Your task to perform on an android device: Search for "logitech g pro" on costco.com, select the first entry, and add it to the cart. Image 0: 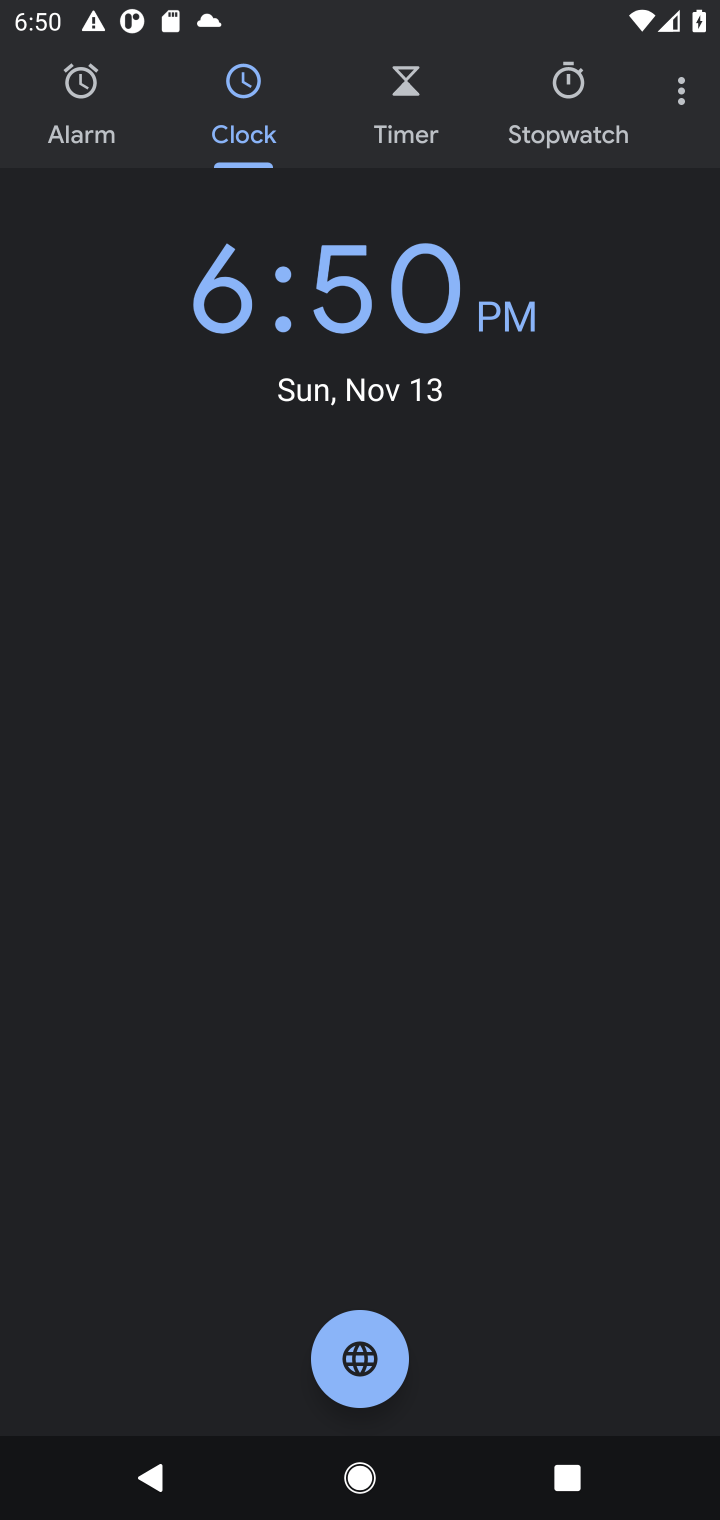
Step 0: press home button
Your task to perform on an android device: Search for "logitech g pro" on costco.com, select the first entry, and add it to the cart. Image 1: 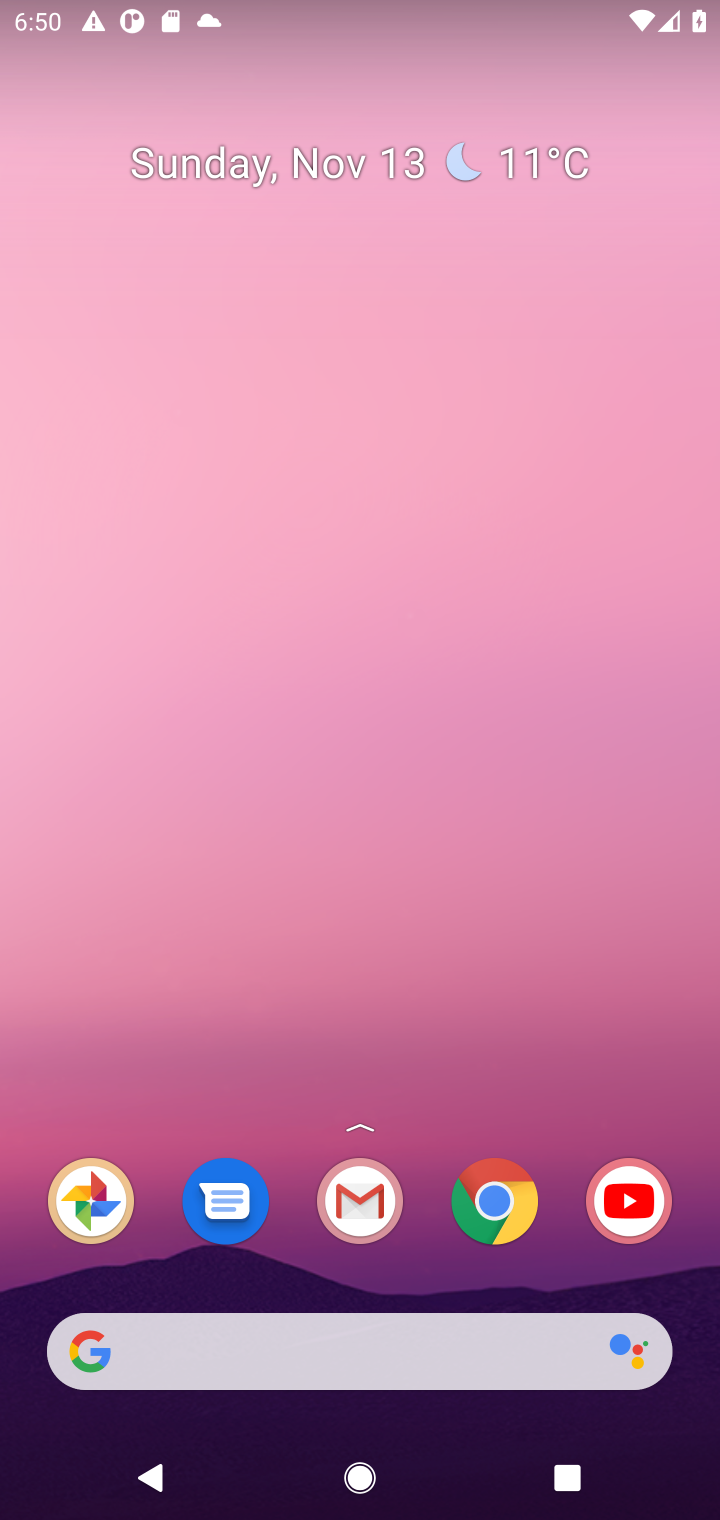
Step 1: drag from (377, 364) to (358, 0)
Your task to perform on an android device: Search for "logitech g pro" on costco.com, select the first entry, and add it to the cart. Image 2: 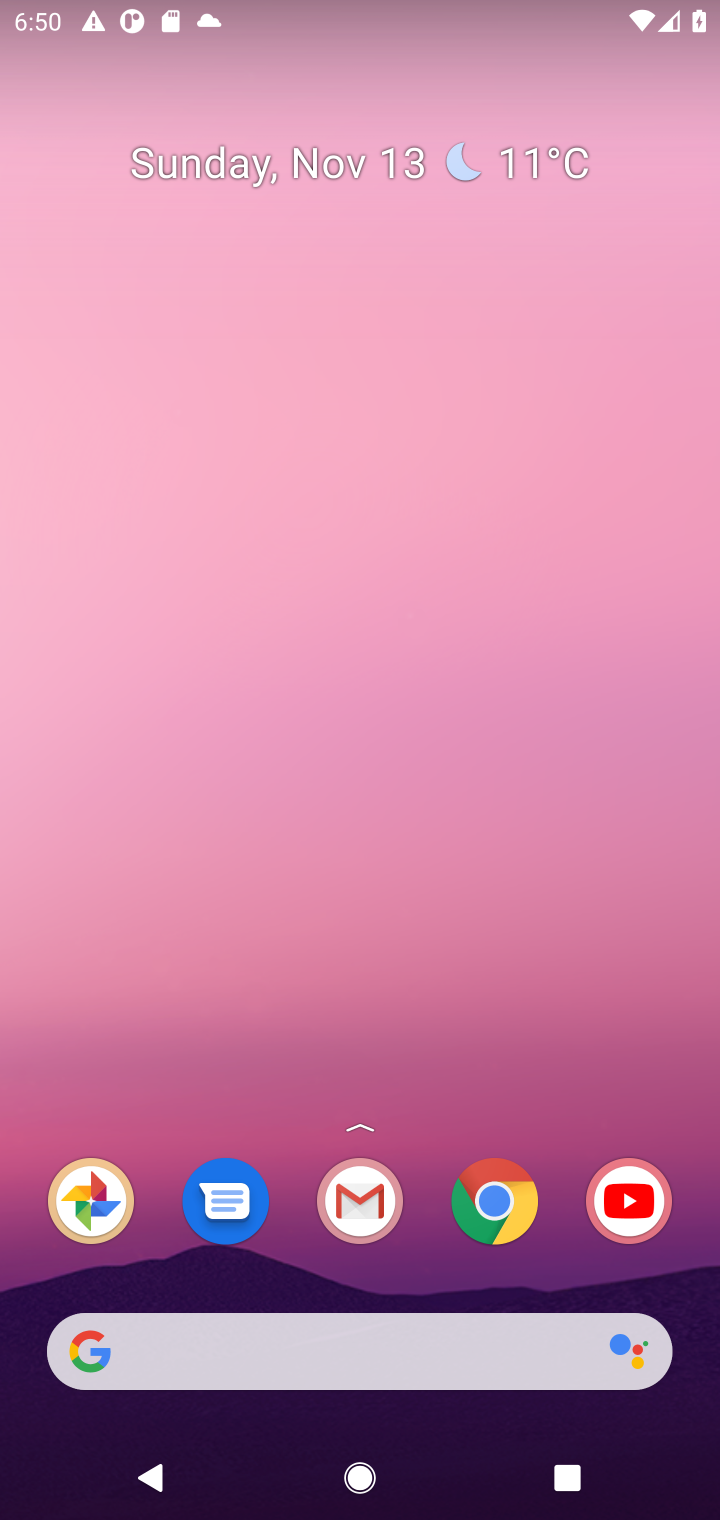
Step 2: drag from (434, 1277) to (414, 48)
Your task to perform on an android device: Search for "logitech g pro" on costco.com, select the first entry, and add it to the cart. Image 3: 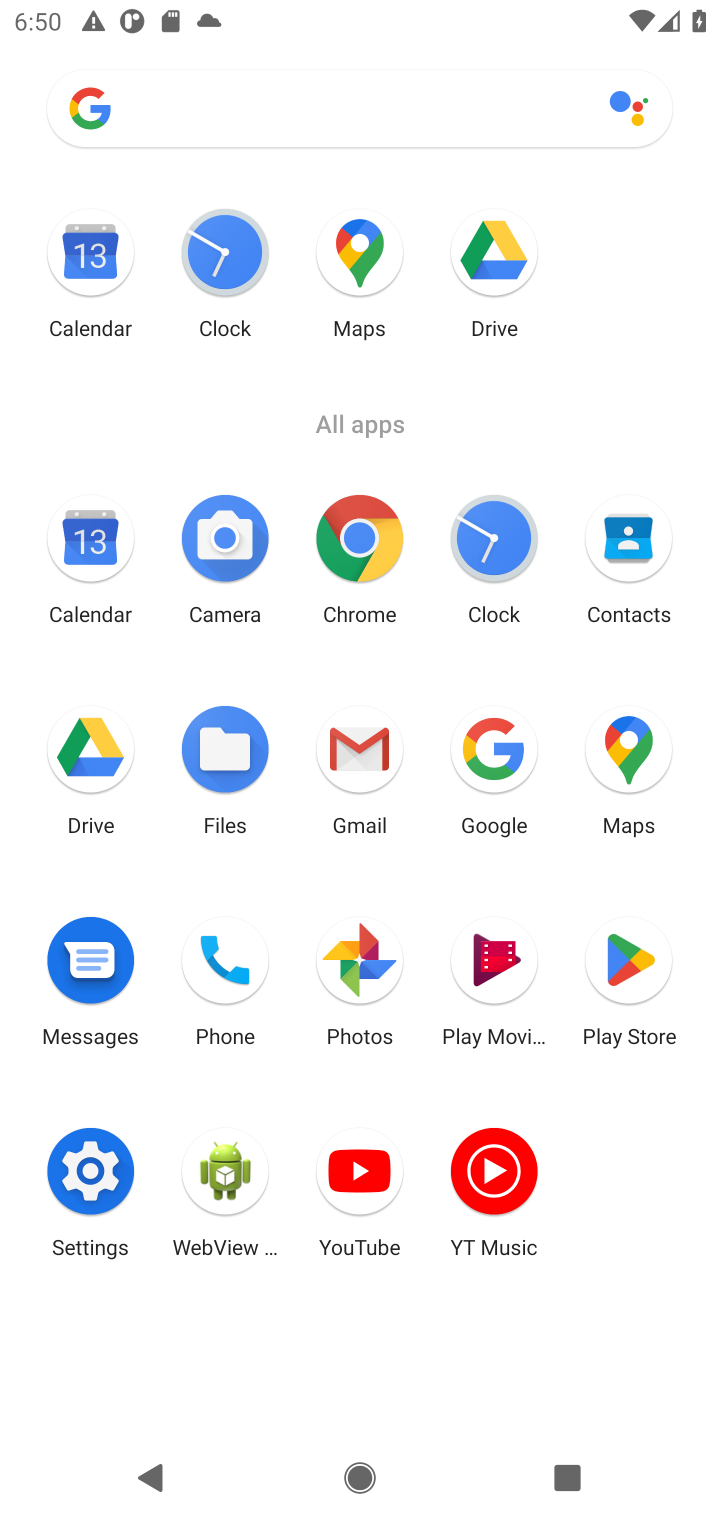
Step 3: click (358, 541)
Your task to perform on an android device: Search for "logitech g pro" on costco.com, select the first entry, and add it to the cart. Image 4: 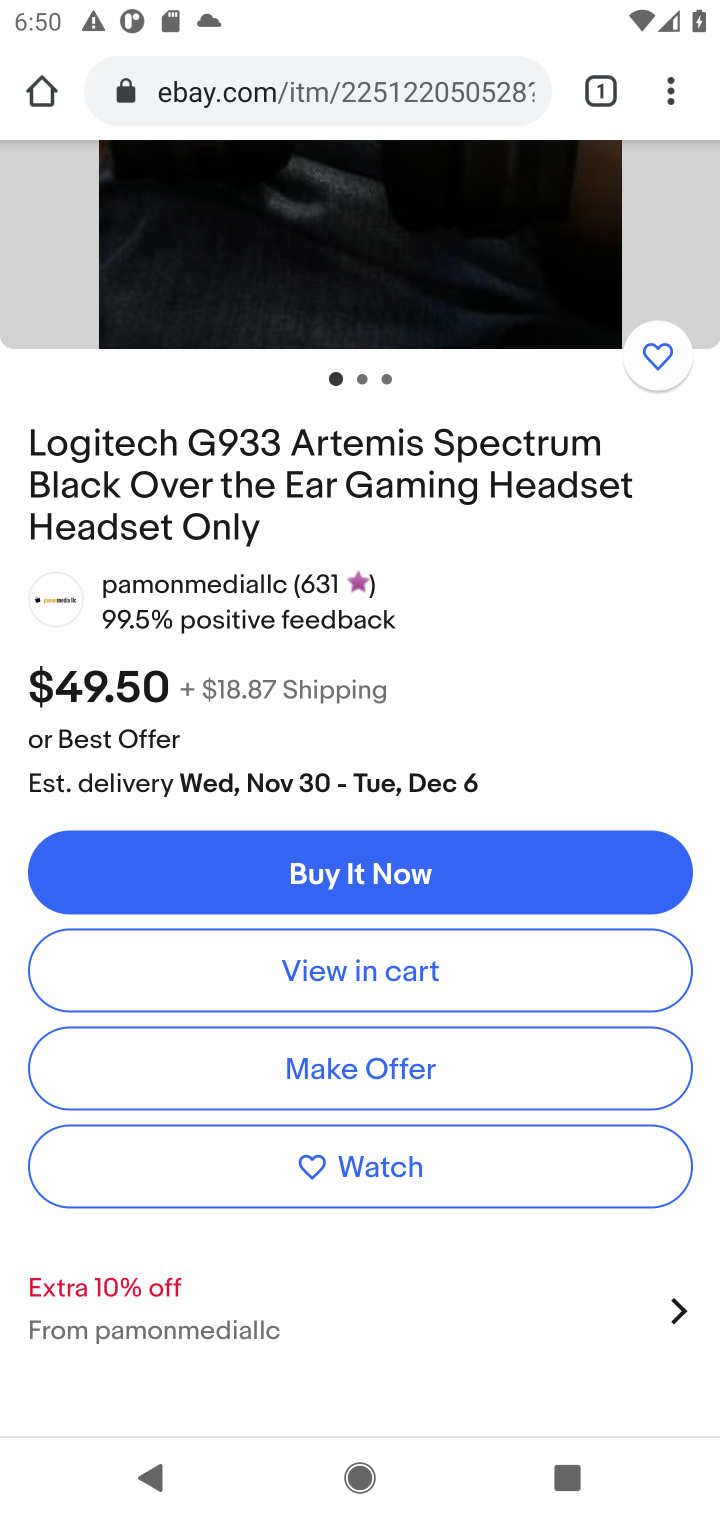
Step 4: click (357, 89)
Your task to perform on an android device: Search for "logitech g pro" on costco.com, select the first entry, and add it to the cart. Image 5: 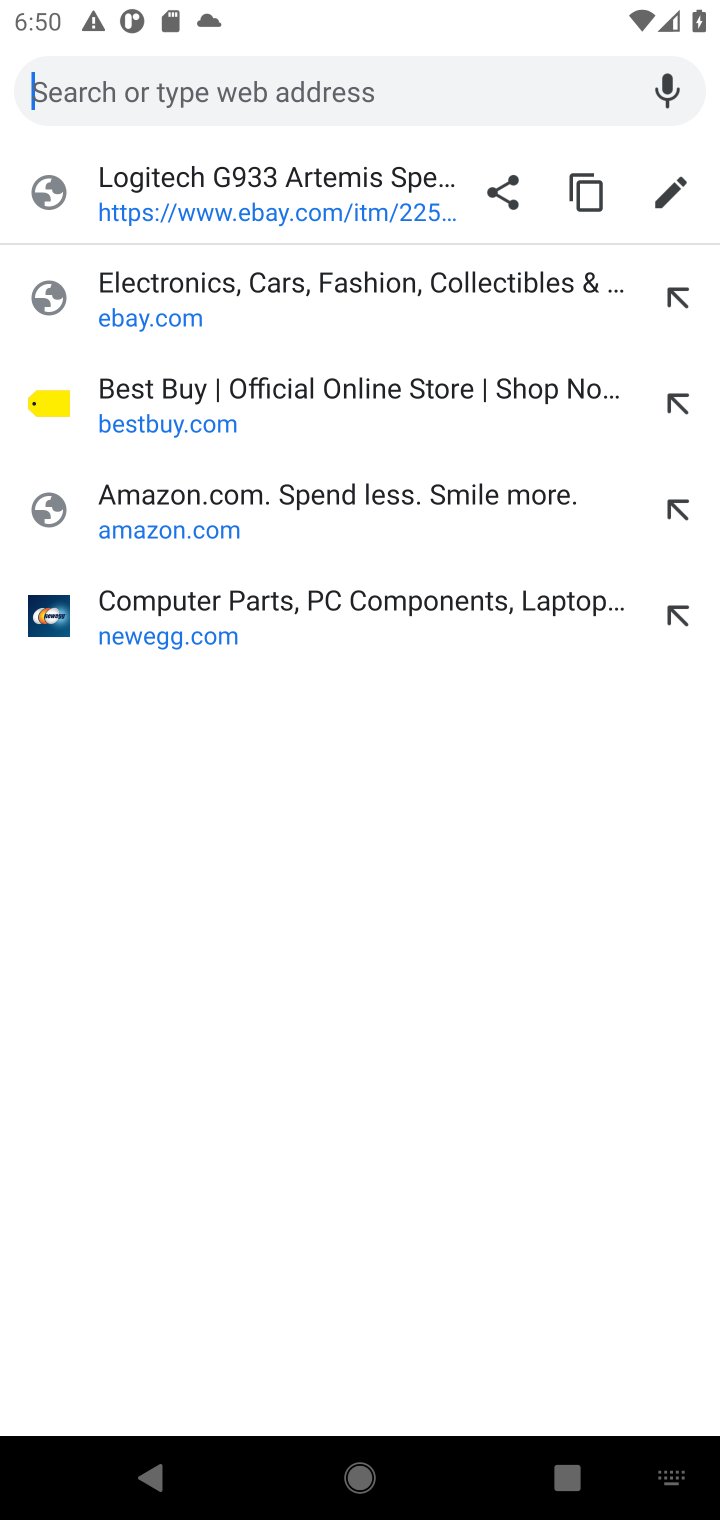
Step 5: type "costco.com"
Your task to perform on an android device: Search for "logitech g pro" on costco.com, select the first entry, and add it to the cart. Image 6: 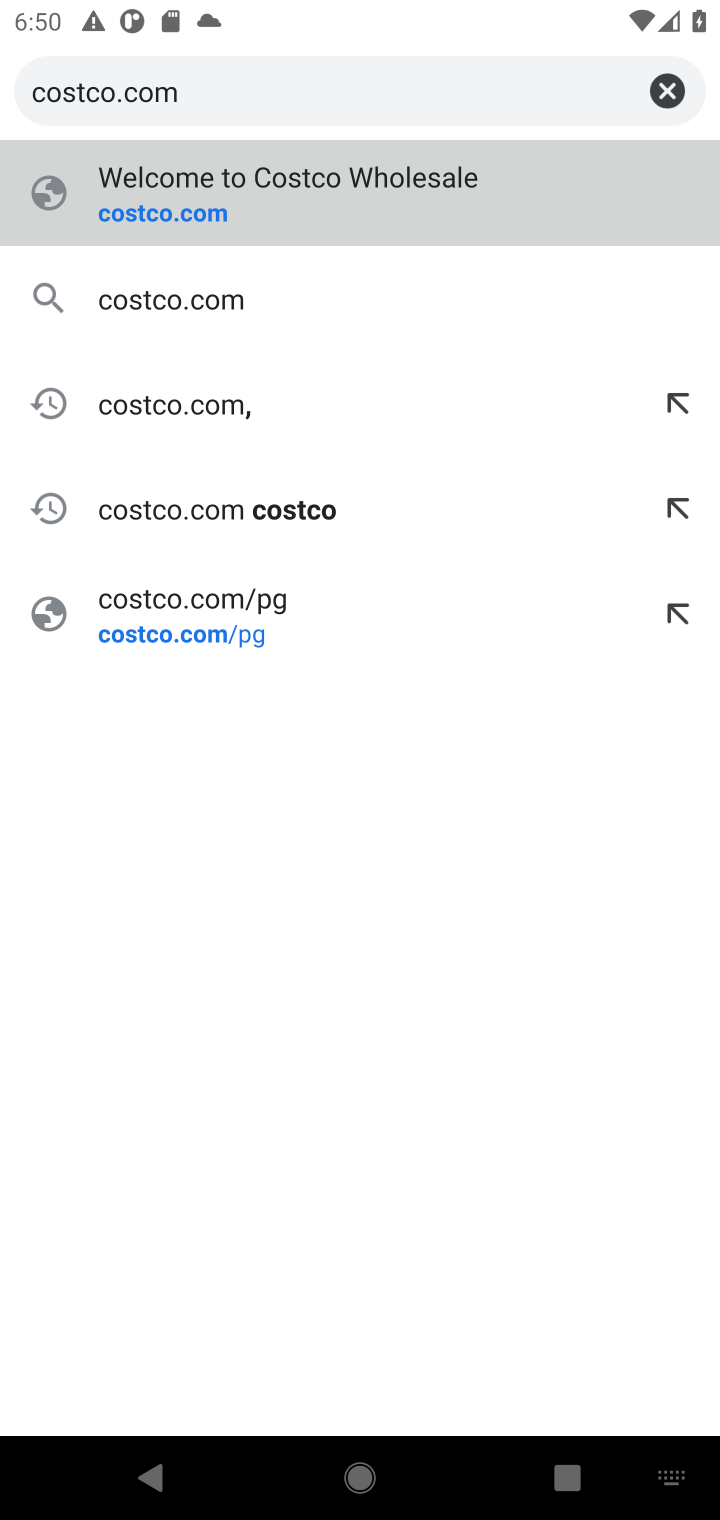
Step 6: press enter
Your task to perform on an android device: Search for "logitech g pro" on costco.com, select the first entry, and add it to the cart. Image 7: 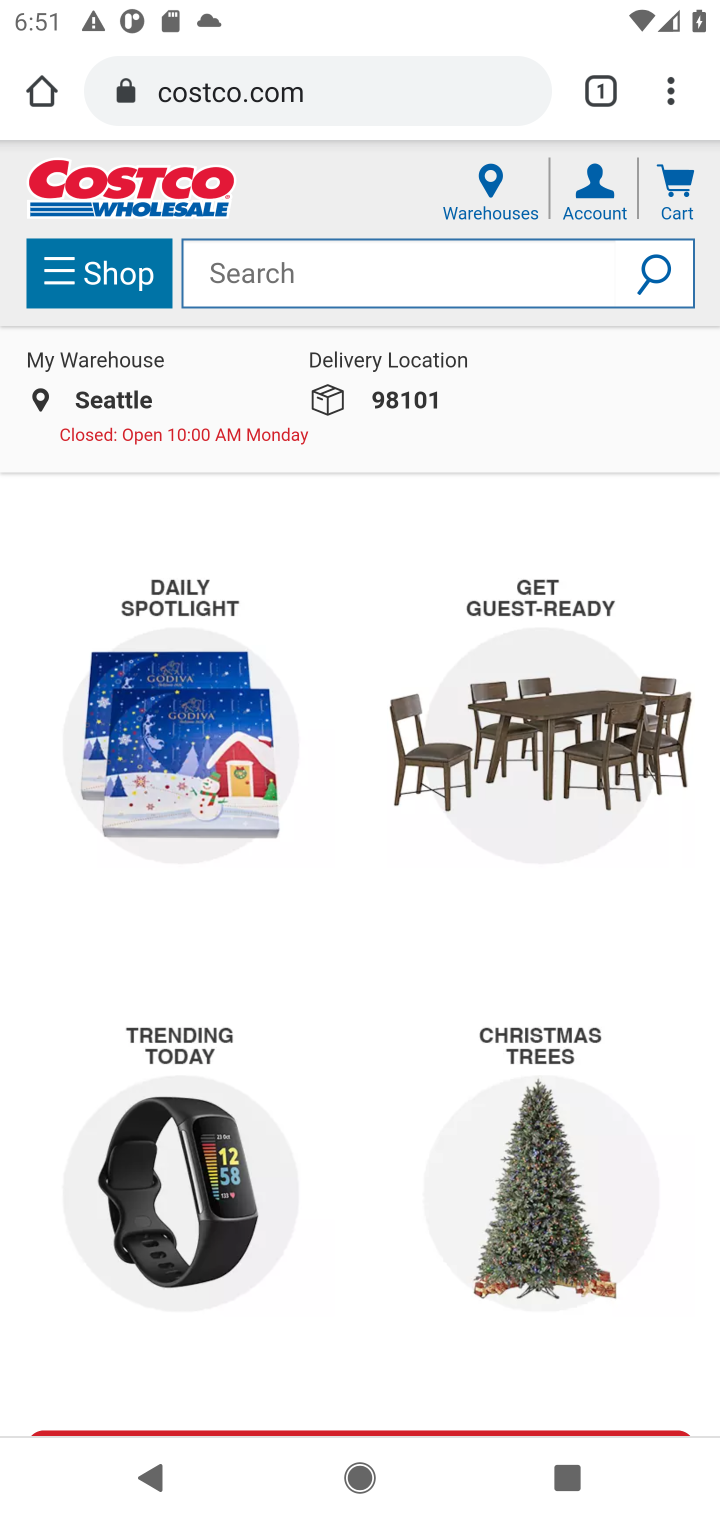
Step 7: click (536, 270)
Your task to perform on an android device: Search for "logitech g pro" on costco.com, select the first entry, and add it to the cart. Image 8: 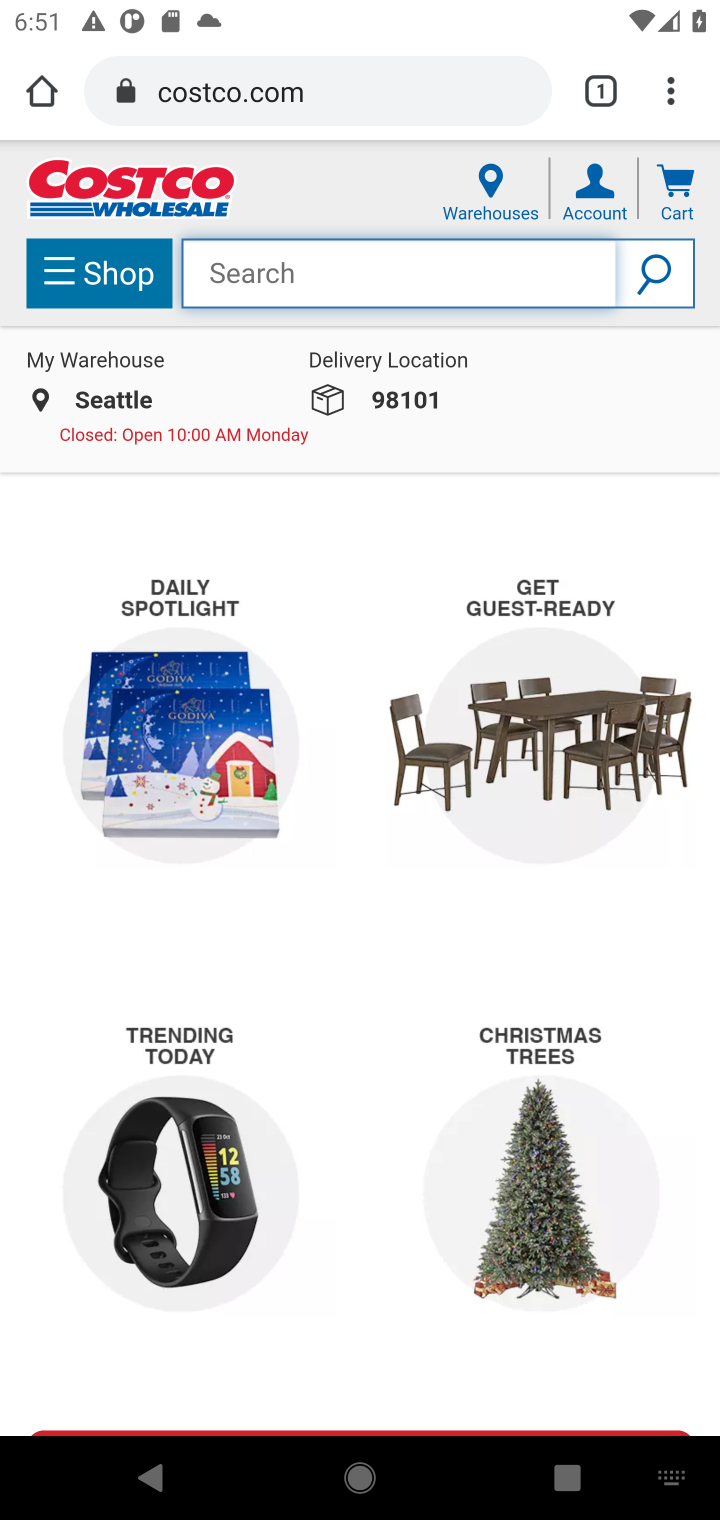
Step 8: type "logitech g pro"
Your task to perform on an android device: Search for "logitech g pro" on costco.com, select the first entry, and add it to the cart. Image 9: 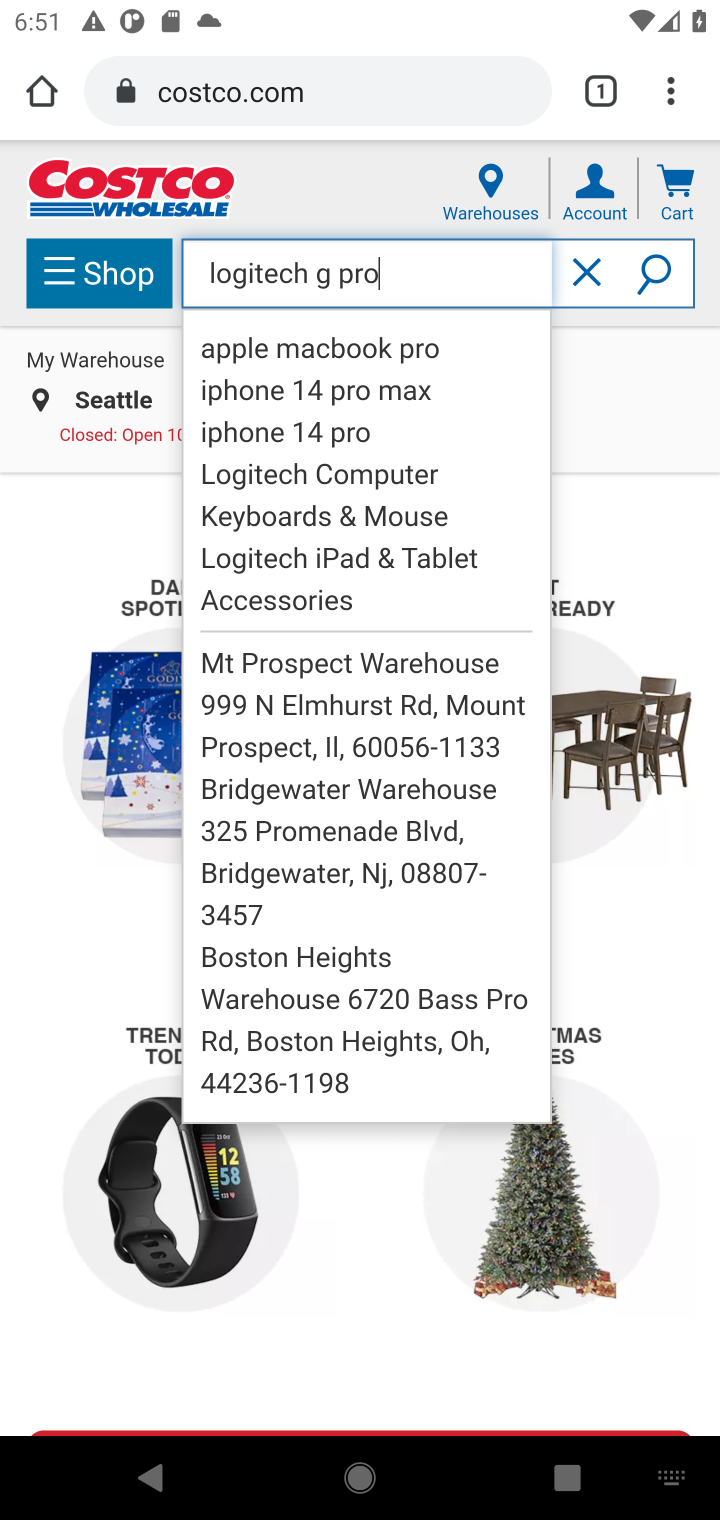
Step 9: press enter
Your task to perform on an android device: Search for "logitech g pro" on costco.com, select the first entry, and add it to the cart. Image 10: 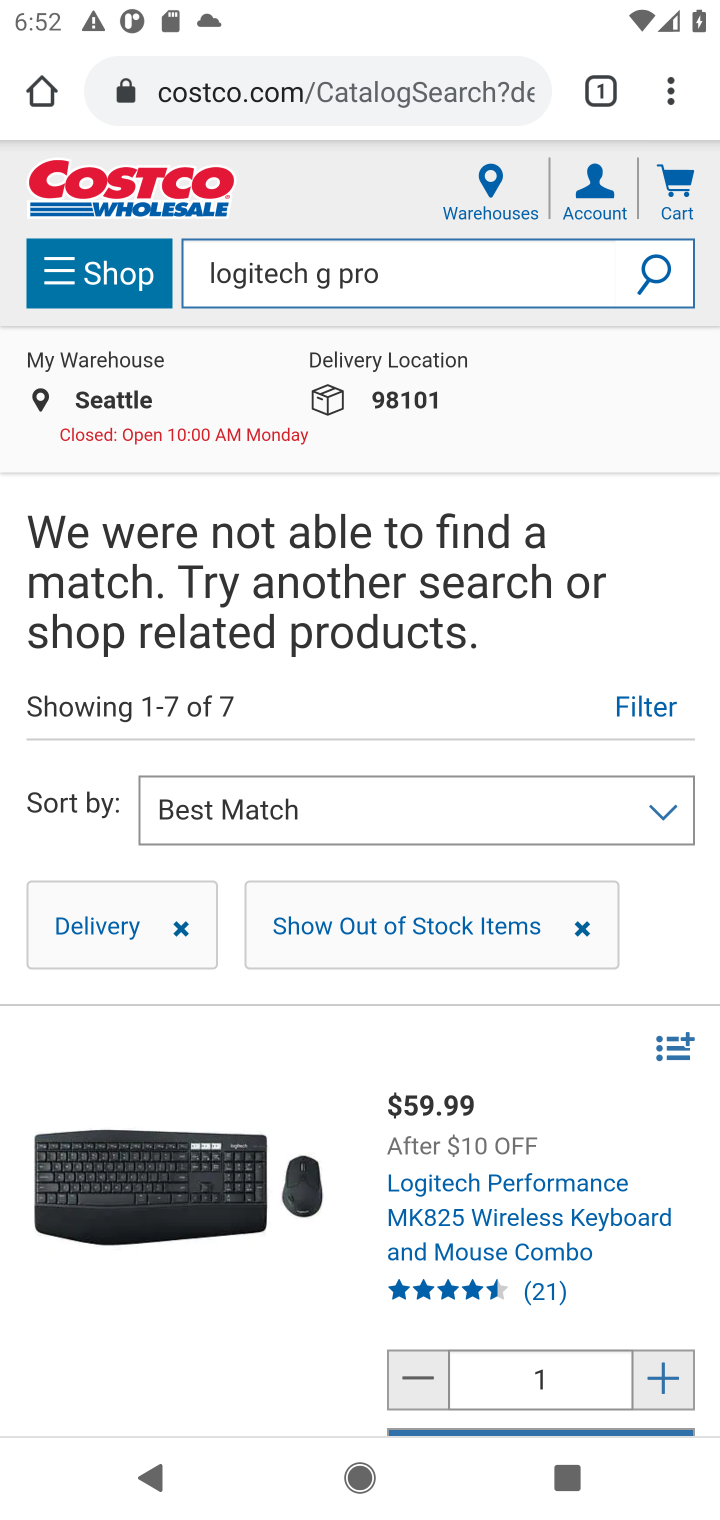
Step 10: task complete